Your task to perform on an android device: add a contact Image 0: 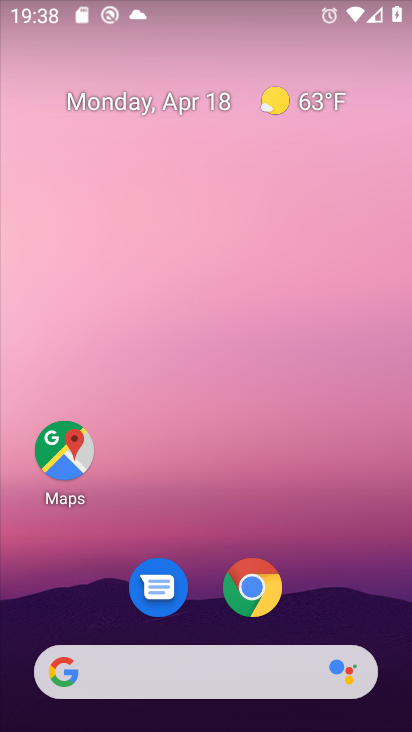
Step 0: drag from (324, 606) to (325, 26)
Your task to perform on an android device: add a contact Image 1: 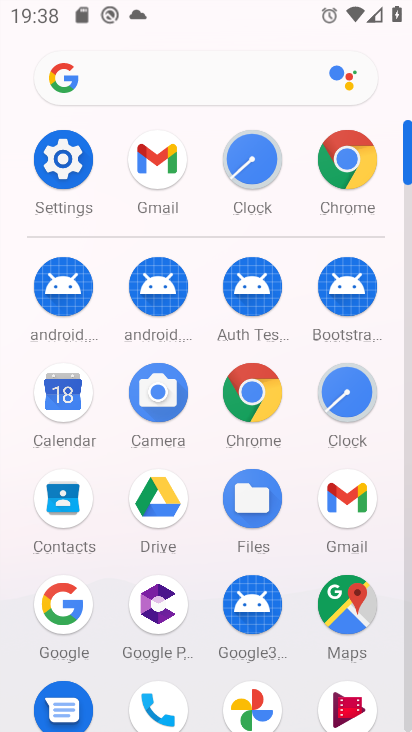
Step 1: click (62, 495)
Your task to perform on an android device: add a contact Image 2: 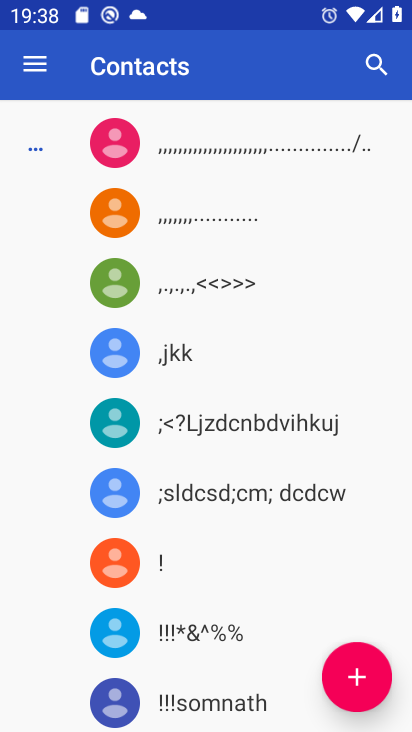
Step 2: click (367, 671)
Your task to perform on an android device: add a contact Image 3: 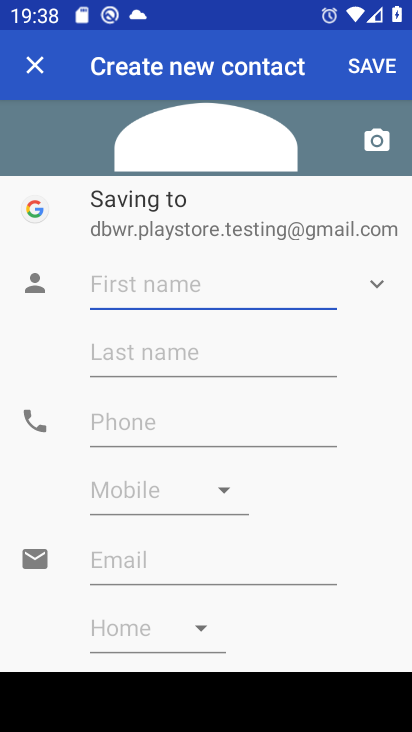
Step 3: type "ZXxas"
Your task to perform on an android device: add a contact Image 4: 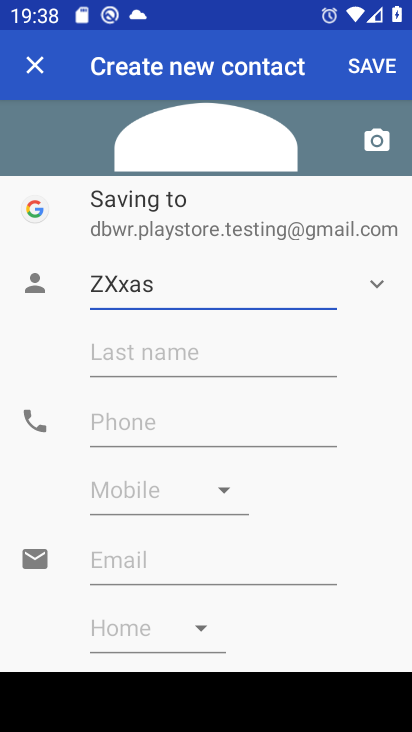
Step 4: click (292, 344)
Your task to perform on an android device: add a contact Image 5: 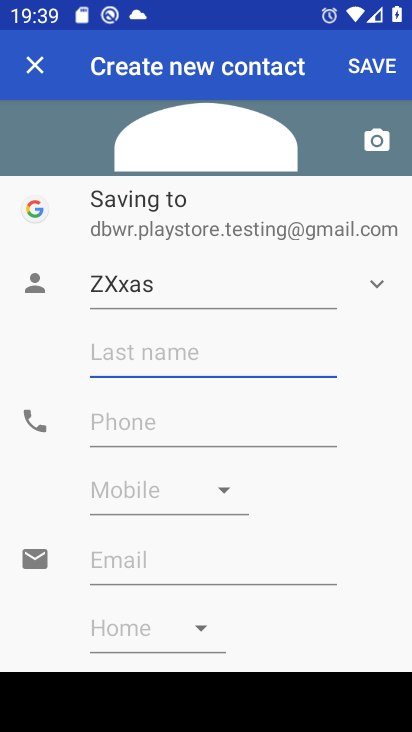
Step 5: type "acas"
Your task to perform on an android device: add a contact Image 6: 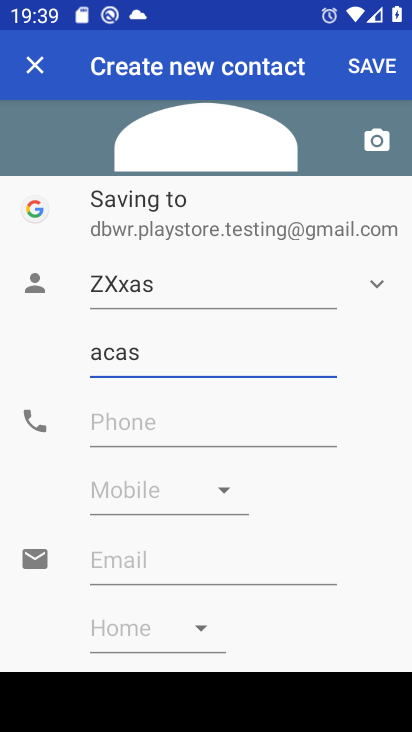
Step 6: click (207, 431)
Your task to perform on an android device: add a contact Image 7: 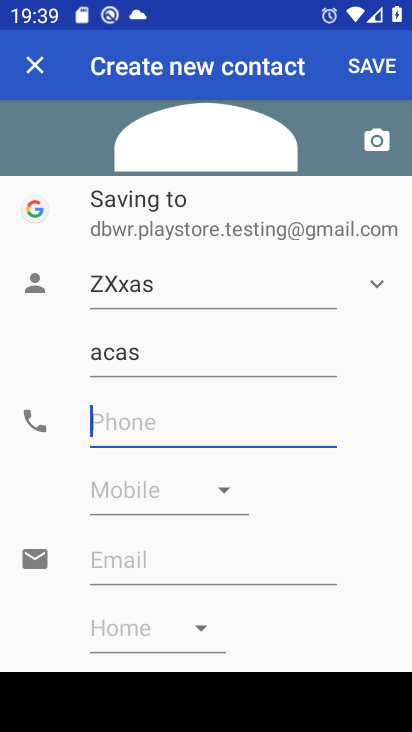
Step 7: type "323445345"
Your task to perform on an android device: add a contact Image 8: 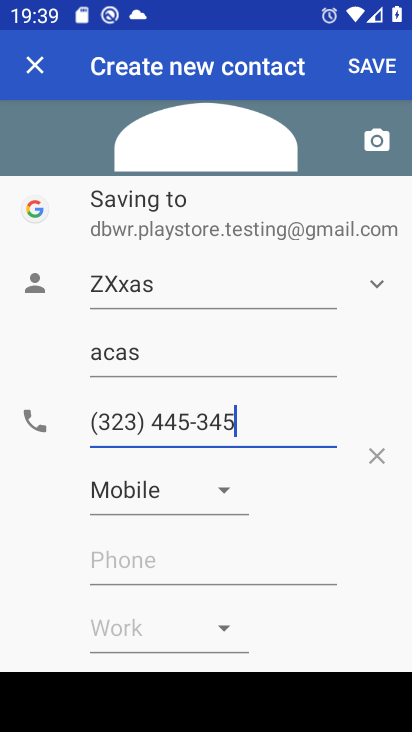
Step 8: click (369, 76)
Your task to perform on an android device: add a contact Image 9: 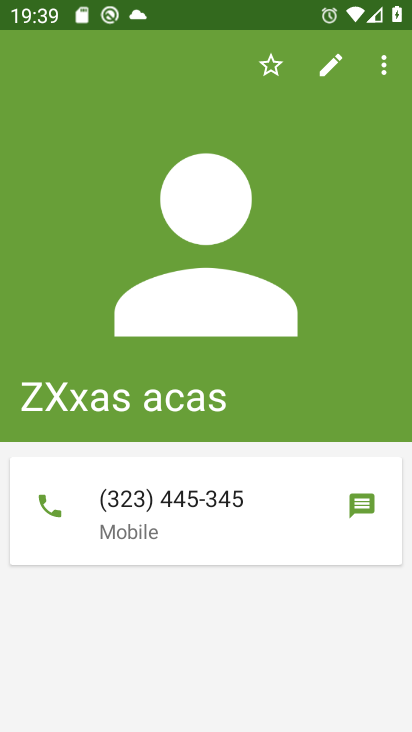
Step 9: task complete